Your task to perform on an android device: Turn off the flashlight Image 0: 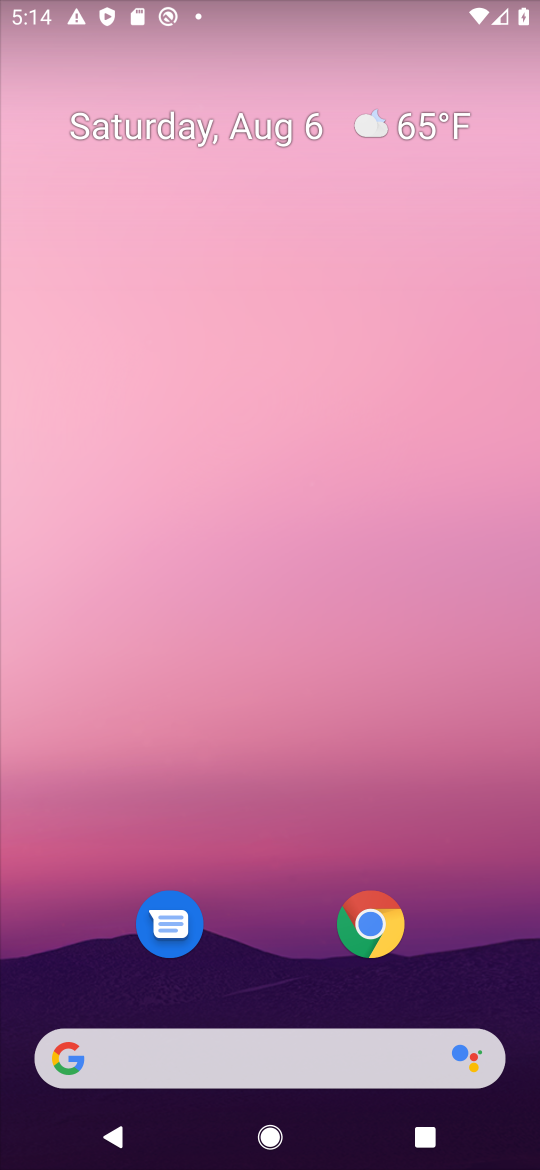
Step 0: drag from (339, 185) to (431, 956)
Your task to perform on an android device: Turn off the flashlight Image 1: 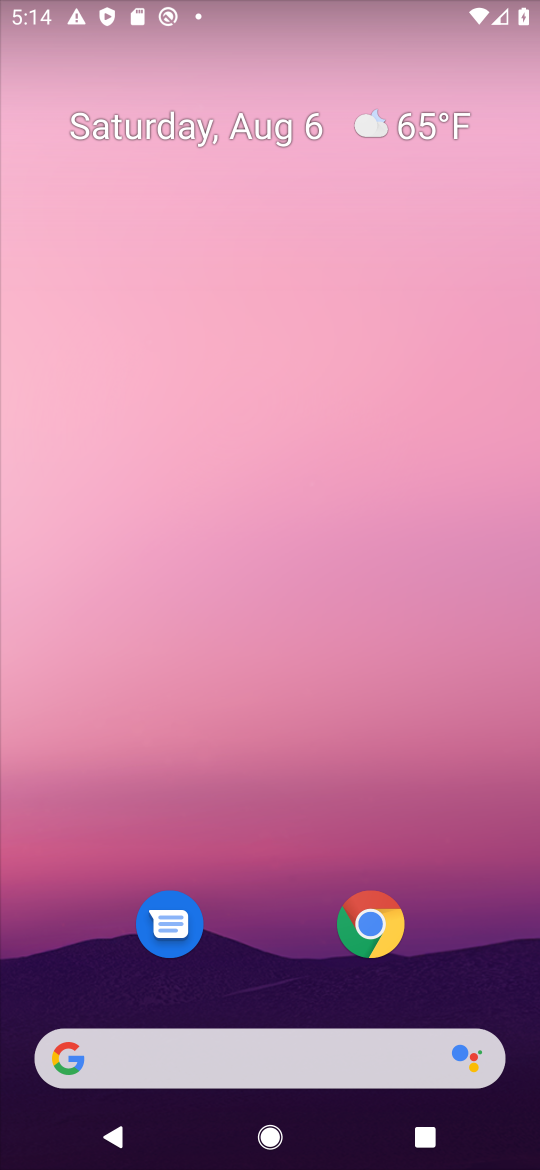
Step 1: click (297, 42)
Your task to perform on an android device: Turn off the flashlight Image 2: 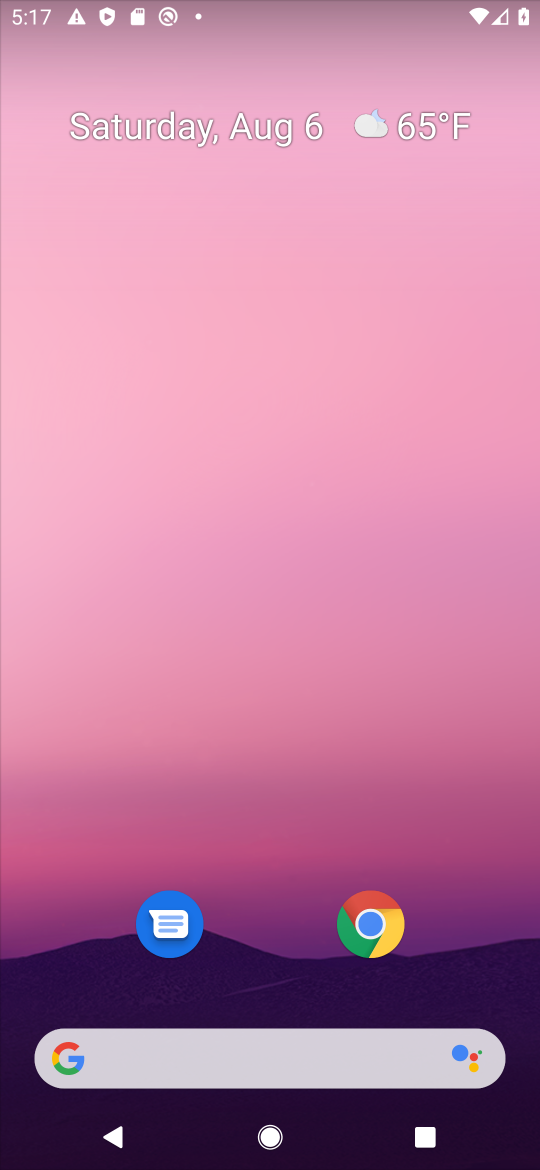
Step 2: task complete